Your task to perform on an android device: Go to accessibility settings Image 0: 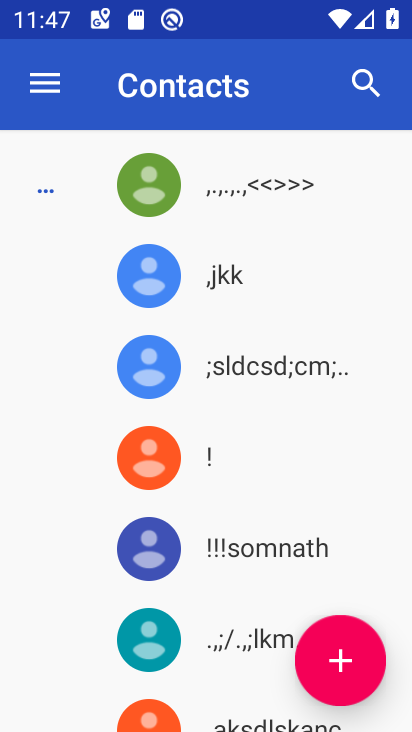
Step 0: press home button
Your task to perform on an android device: Go to accessibility settings Image 1: 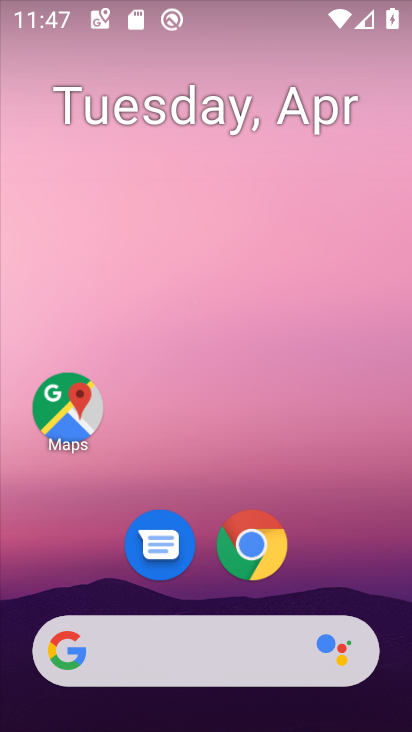
Step 1: drag from (365, 583) to (339, 55)
Your task to perform on an android device: Go to accessibility settings Image 2: 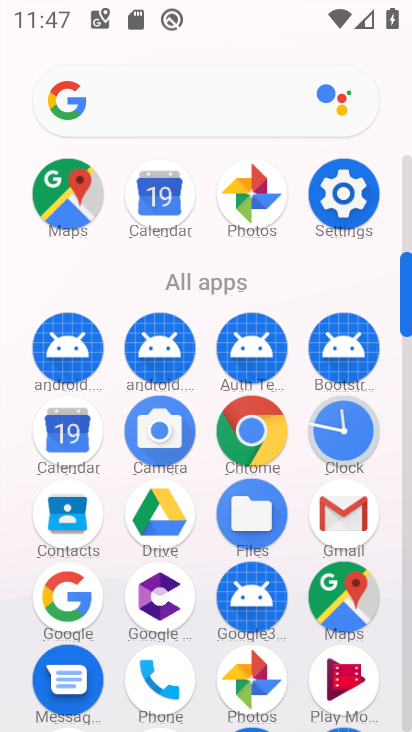
Step 2: click (353, 195)
Your task to perform on an android device: Go to accessibility settings Image 3: 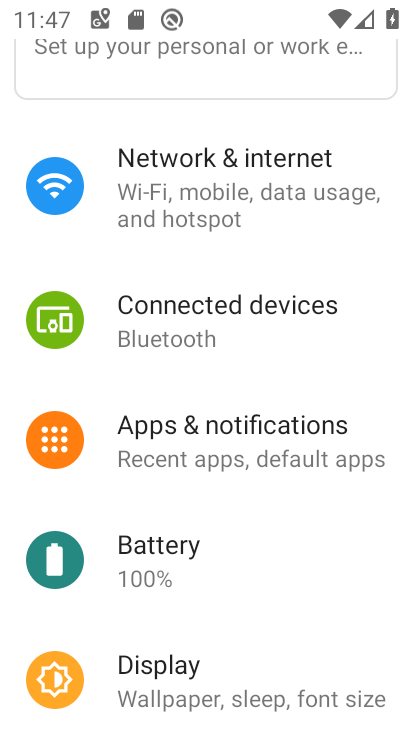
Step 3: drag from (229, 325) to (223, 578)
Your task to perform on an android device: Go to accessibility settings Image 4: 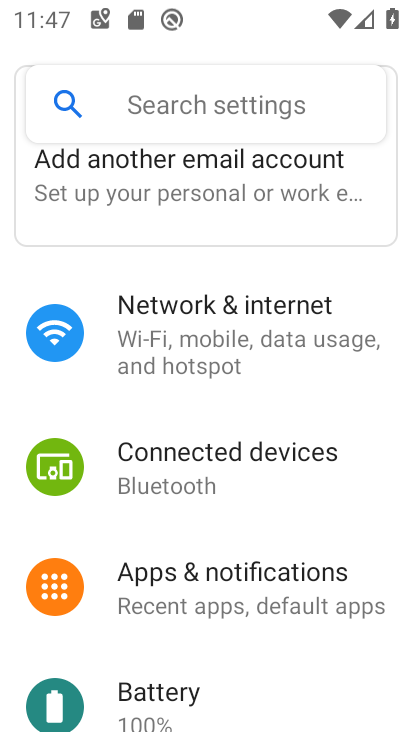
Step 4: drag from (260, 653) to (258, 226)
Your task to perform on an android device: Go to accessibility settings Image 5: 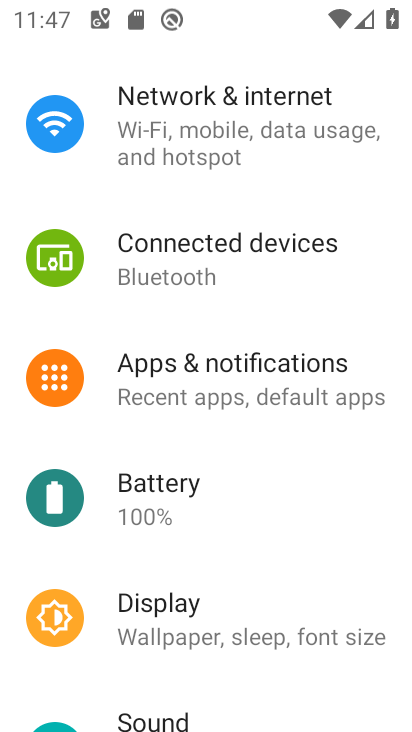
Step 5: drag from (208, 598) to (268, 226)
Your task to perform on an android device: Go to accessibility settings Image 6: 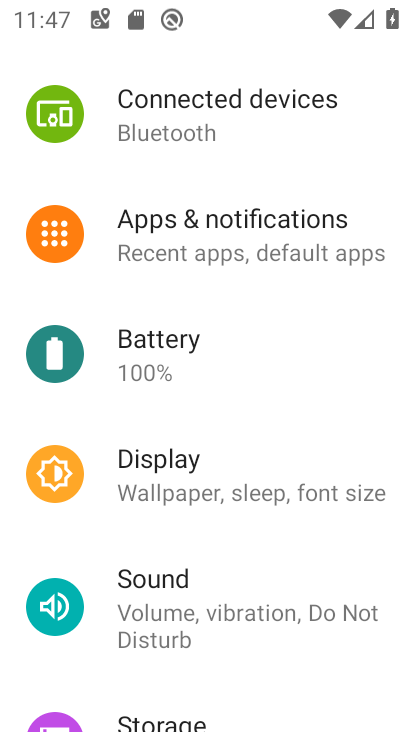
Step 6: drag from (238, 639) to (321, 241)
Your task to perform on an android device: Go to accessibility settings Image 7: 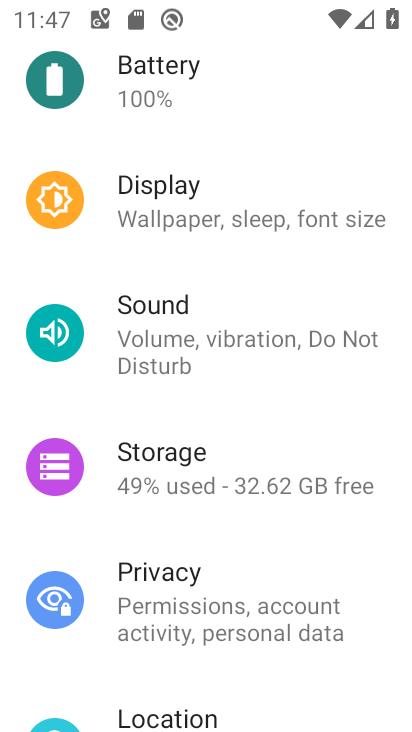
Step 7: drag from (253, 609) to (312, 229)
Your task to perform on an android device: Go to accessibility settings Image 8: 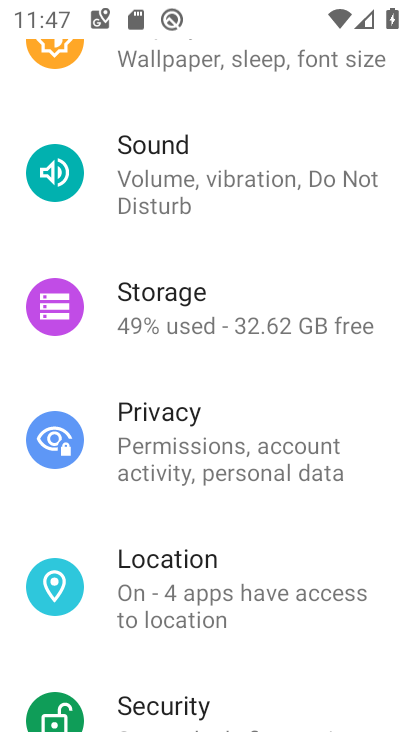
Step 8: drag from (264, 557) to (323, 217)
Your task to perform on an android device: Go to accessibility settings Image 9: 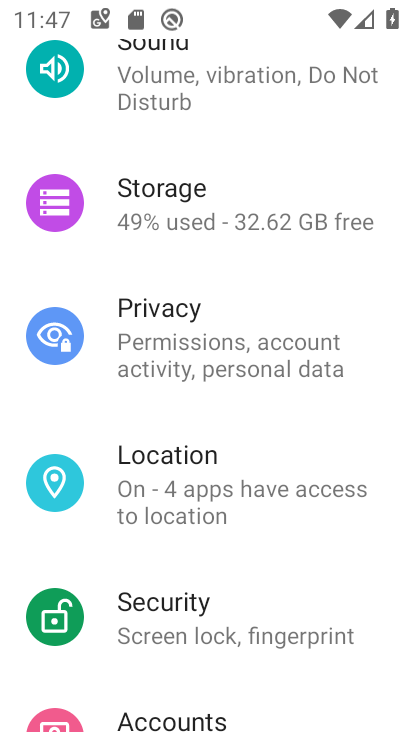
Step 9: drag from (260, 421) to (254, 212)
Your task to perform on an android device: Go to accessibility settings Image 10: 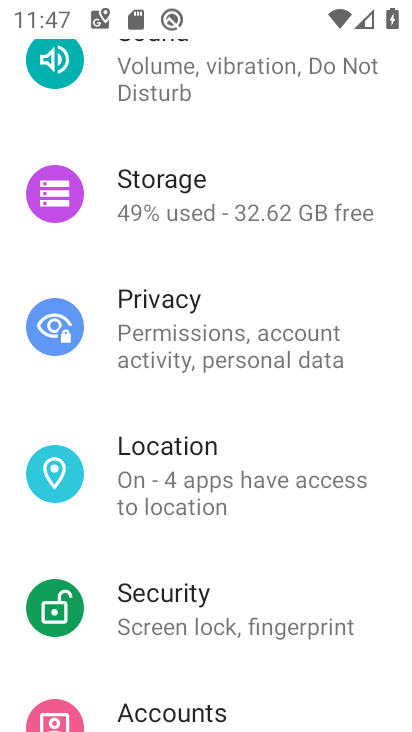
Step 10: drag from (225, 647) to (296, 201)
Your task to perform on an android device: Go to accessibility settings Image 11: 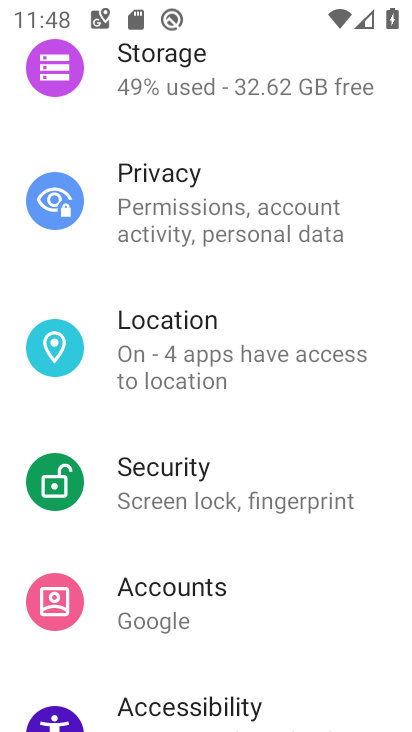
Step 11: drag from (241, 678) to (293, 233)
Your task to perform on an android device: Go to accessibility settings Image 12: 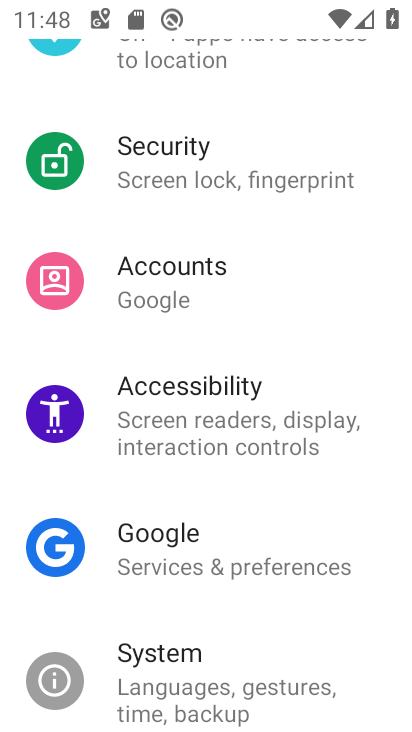
Step 12: click (212, 443)
Your task to perform on an android device: Go to accessibility settings Image 13: 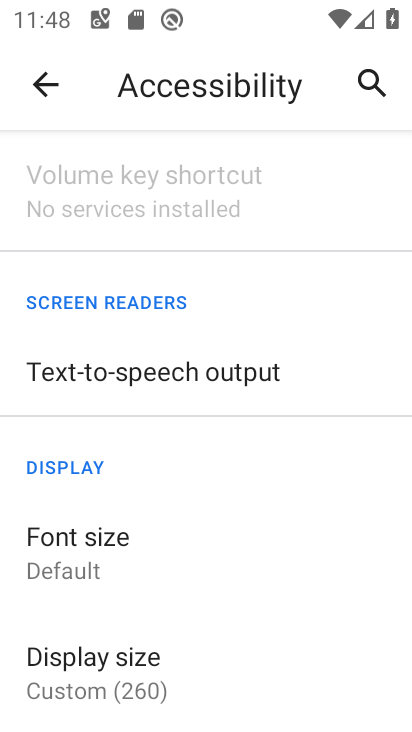
Step 13: task complete